Your task to perform on an android device: toggle notifications settings in the gmail app Image 0: 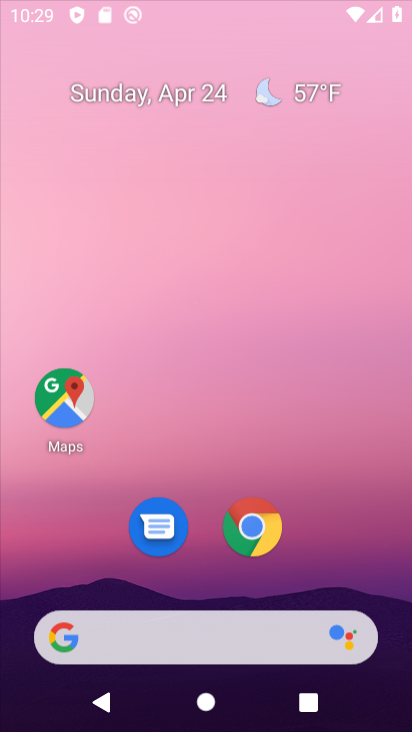
Step 0: click (244, 213)
Your task to perform on an android device: toggle notifications settings in the gmail app Image 1: 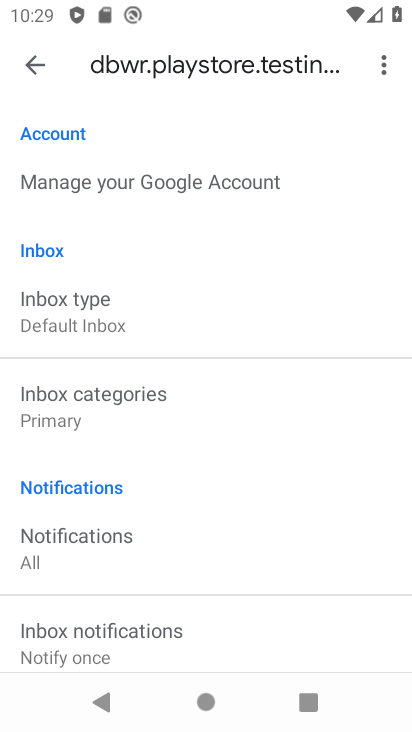
Step 1: click (78, 523)
Your task to perform on an android device: toggle notifications settings in the gmail app Image 2: 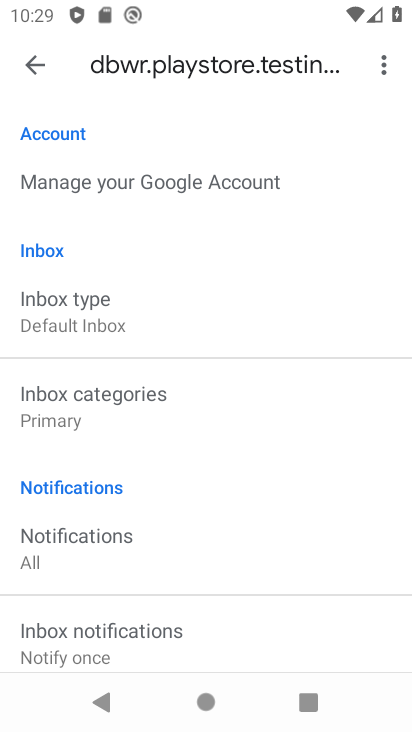
Step 2: click (78, 523)
Your task to perform on an android device: toggle notifications settings in the gmail app Image 3: 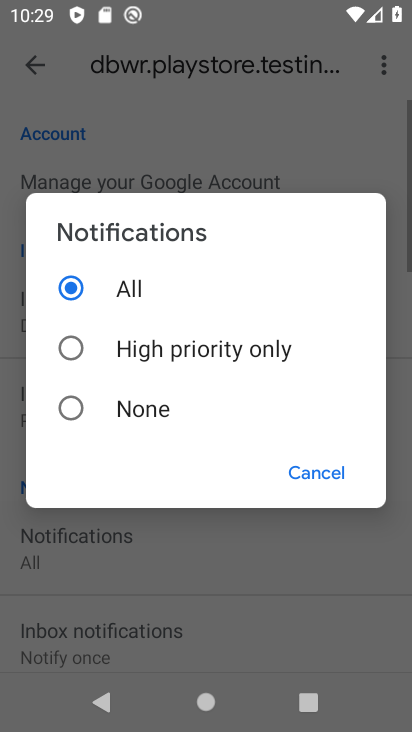
Step 3: click (82, 528)
Your task to perform on an android device: toggle notifications settings in the gmail app Image 4: 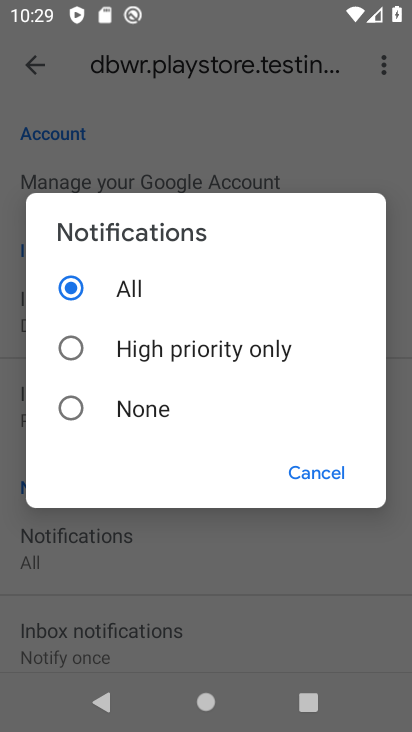
Step 4: click (66, 344)
Your task to perform on an android device: toggle notifications settings in the gmail app Image 5: 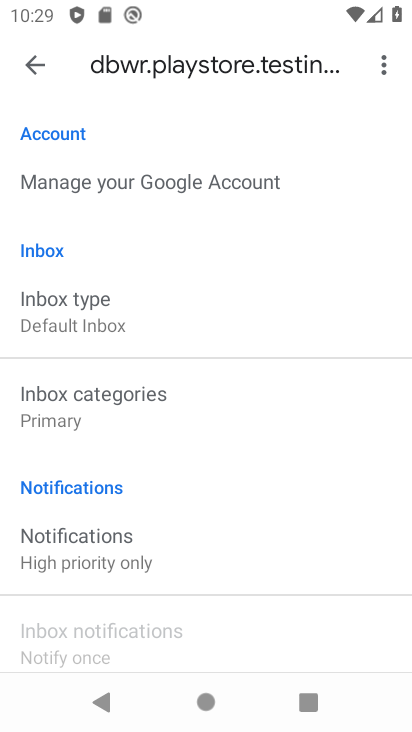
Step 5: task complete